Your task to perform on an android device: set the timer Image 0: 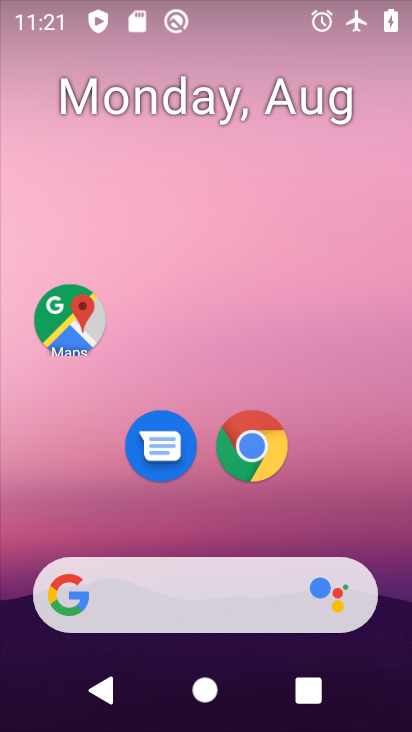
Step 0: drag from (241, 516) to (275, 0)
Your task to perform on an android device: set the timer Image 1: 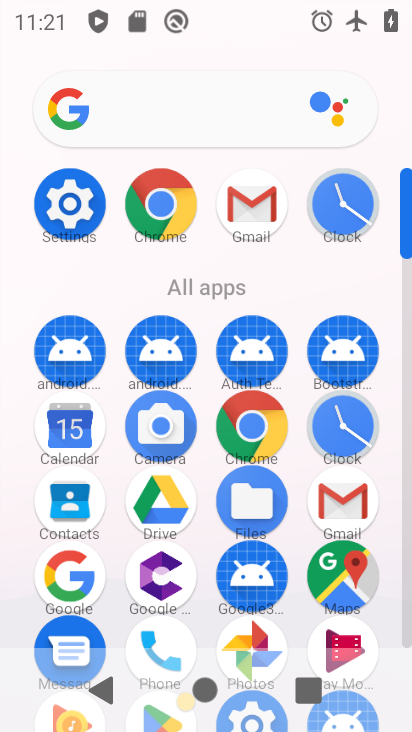
Step 1: click (347, 196)
Your task to perform on an android device: set the timer Image 2: 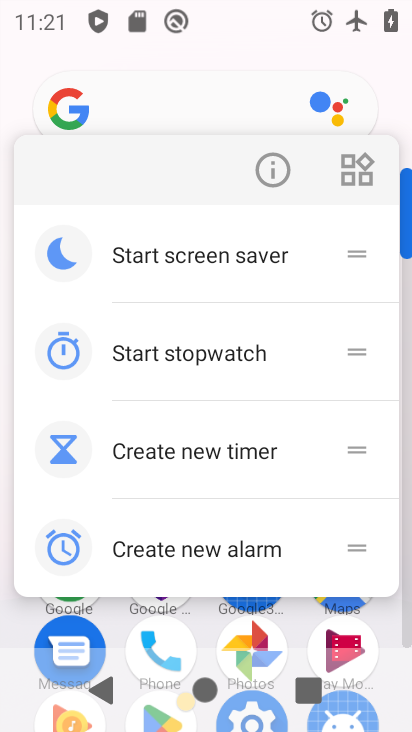
Step 2: drag from (209, 597) to (213, 530)
Your task to perform on an android device: set the timer Image 3: 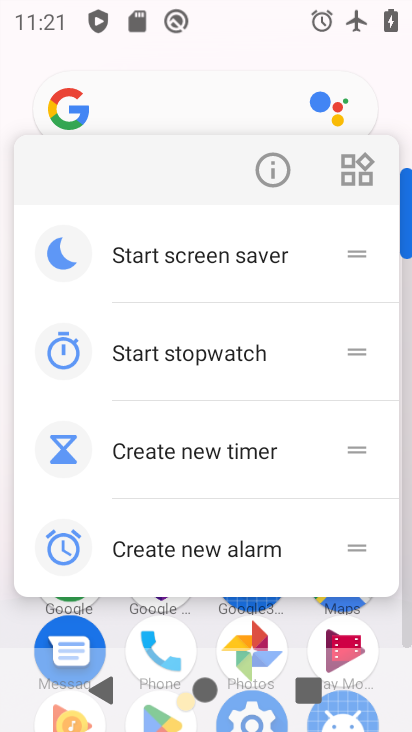
Step 3: press back button
Your task to perform on an android device: set the timer Image 4: 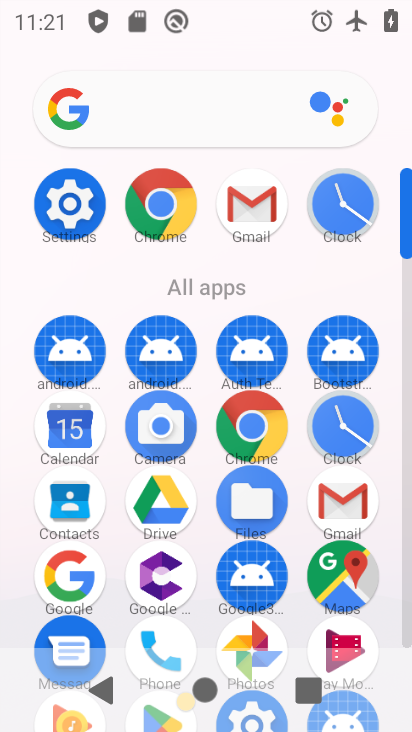
Step 4: click (350, 431)
Your task to perform on an android device: set the timer Image 5: 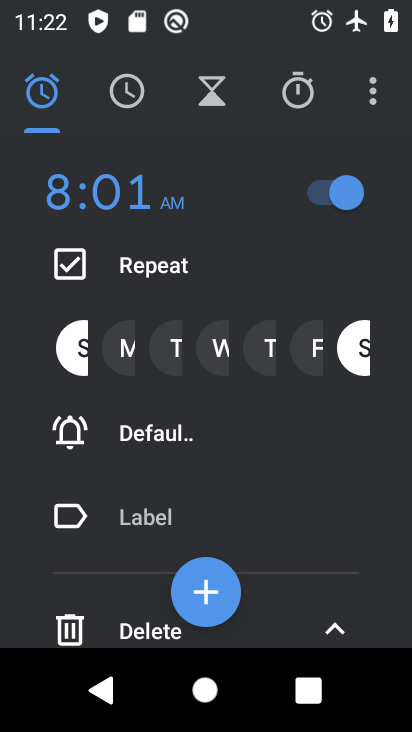
Step 5: click (222, 89)
Your task to perform on an android device: set the timer Image 6: 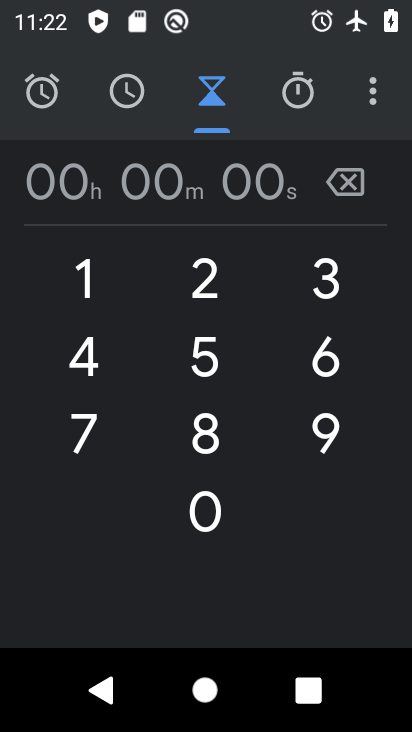
Step 6: click (91, 365)
Your task to perform on an android device: set the timer Image 7: 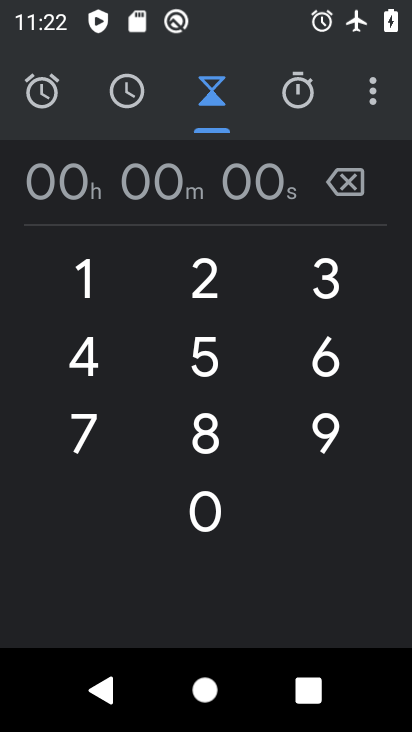
Step 7: click (240, 376)
Your task to perform on an android device: set the timer Image 8: 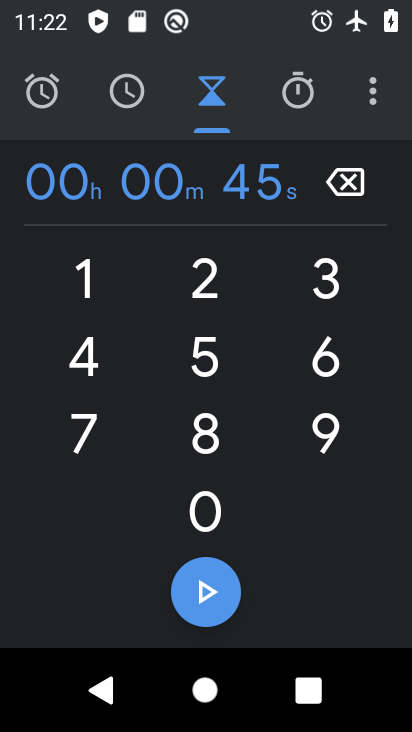
Step 8: click (118, 423)
Your task to perform on an android device: set the timer Image 9: 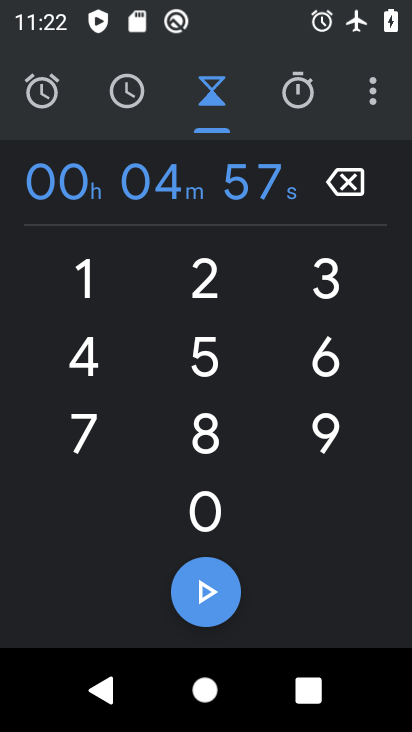
Step 9: click (205, 600)
Your task to perform on an android device: set the timer Image 10: 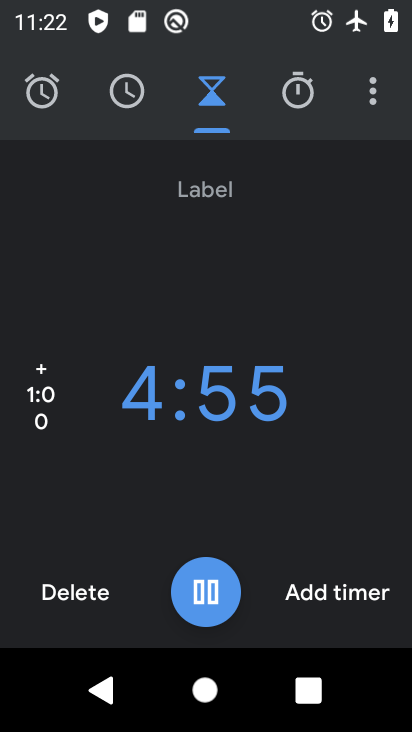
Step 10: task complete